Your task to perform on an android device: Go to Yahoo.com Image 0: 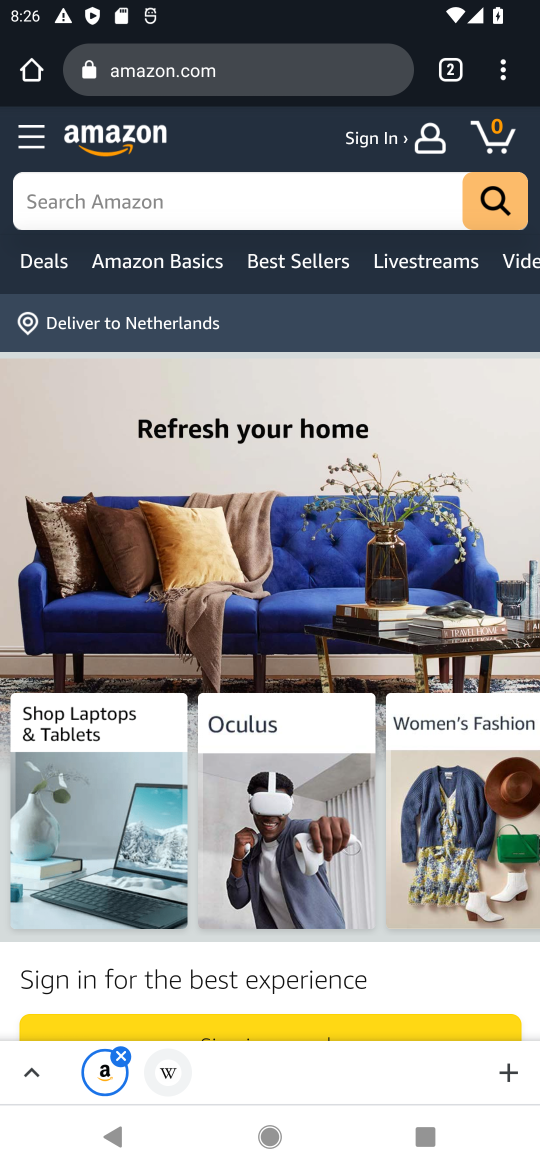
Step 0: click (24, 93)
Your task to perform on an android device: Go to Yahoo.com Image 1: 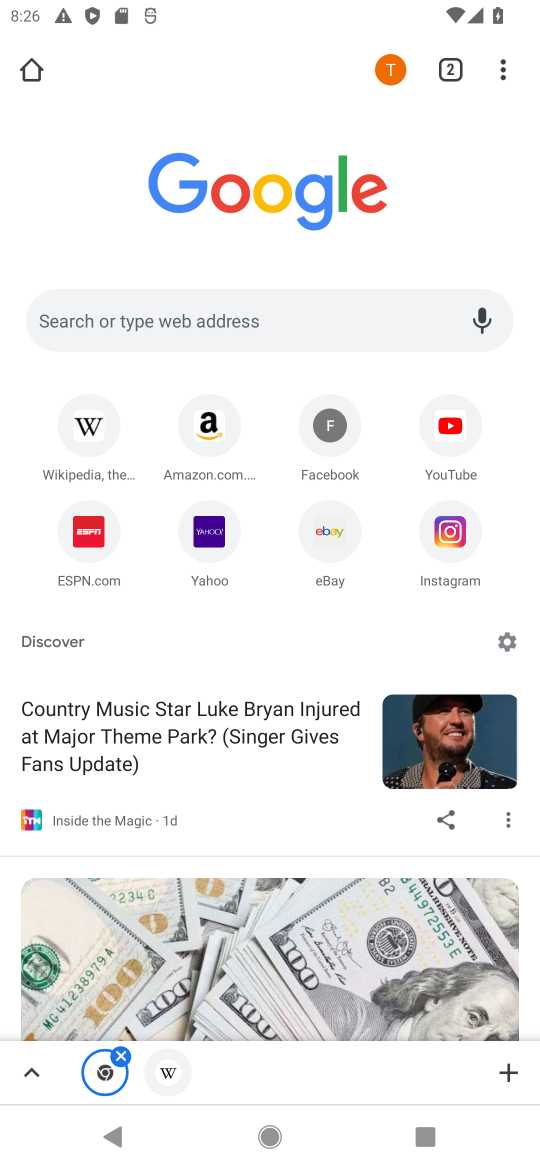
Step 1: click (202, 539)
Your task to perform on an android device: Go to Yahoo.com Image 2: 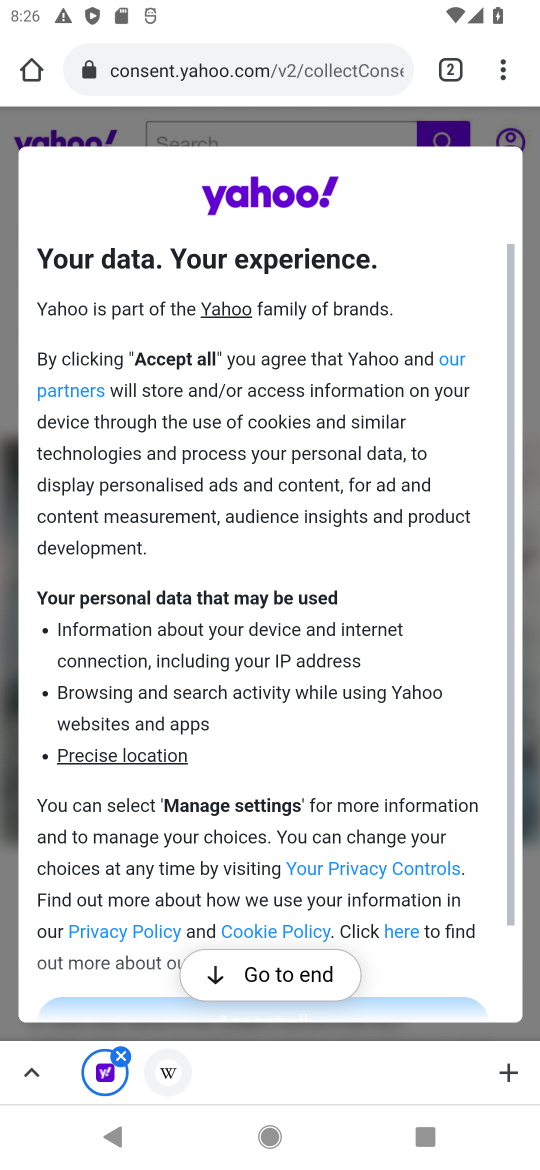
Step 2: task complete